Your task to perform on an android device: Open Google Chrome Image 0: 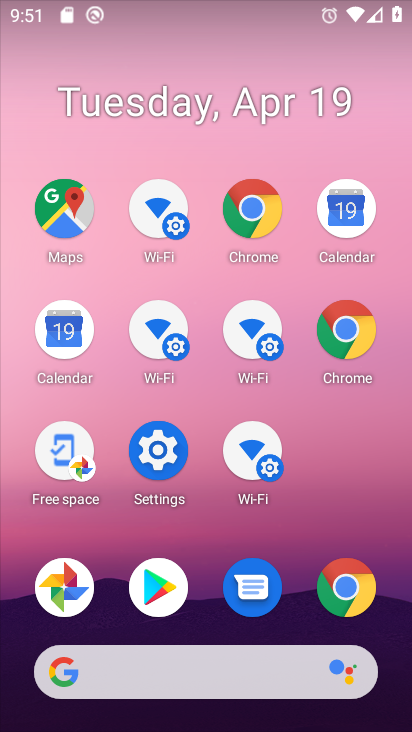
Step 0: click (351, 587)
Your task to perform on an android device: Open Google Chrome Image 1: 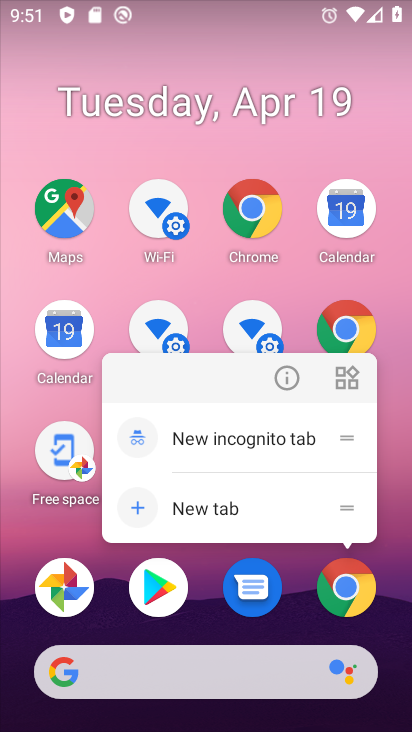
Step 1: click (353, 585)
Your task to perform on an android device: Open Google Chrome Image 2: 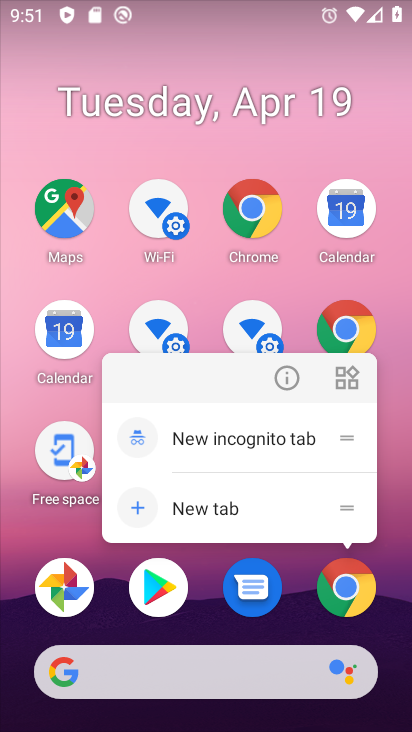
Step 2: click (193, 499)
Your task to perform on an android device: Open Google Chrome Image 3: 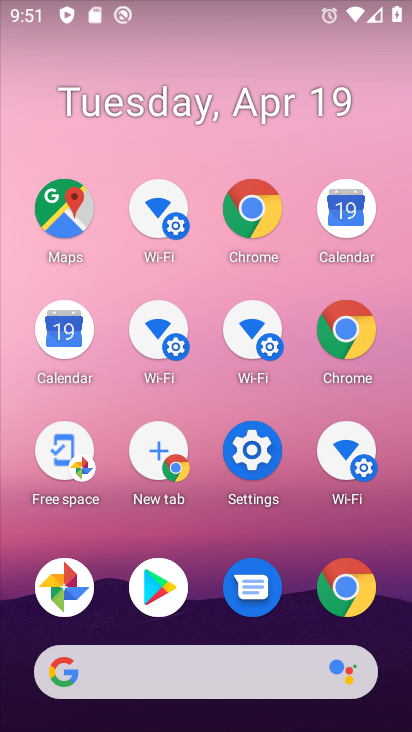
Step 3: click (183, 489)
Your task to perform on an android device: Open Google Chrome Image 4: 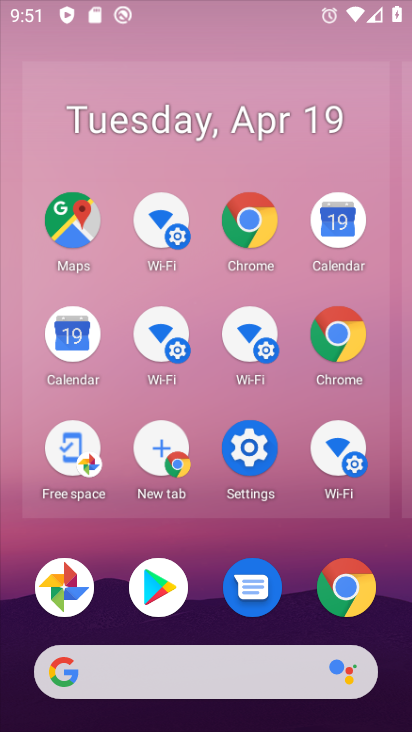
Step 4: click (351, 580)
Your task to perform on an android device: Open Google Chrome Image 5: 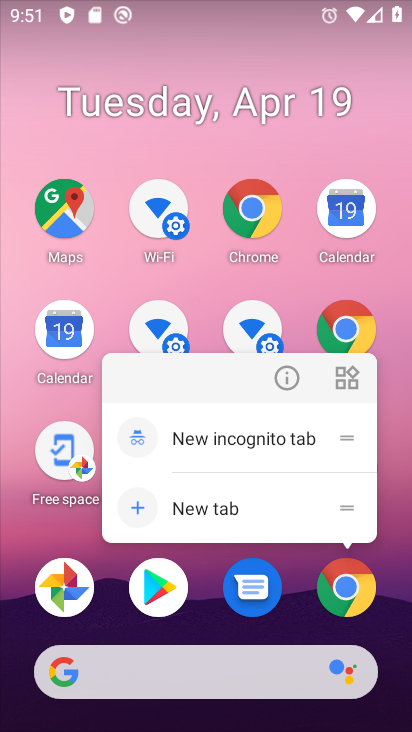
Step 5: click (207, 498)
Your task to perform on an android device: Open Google Chrome Image 6: 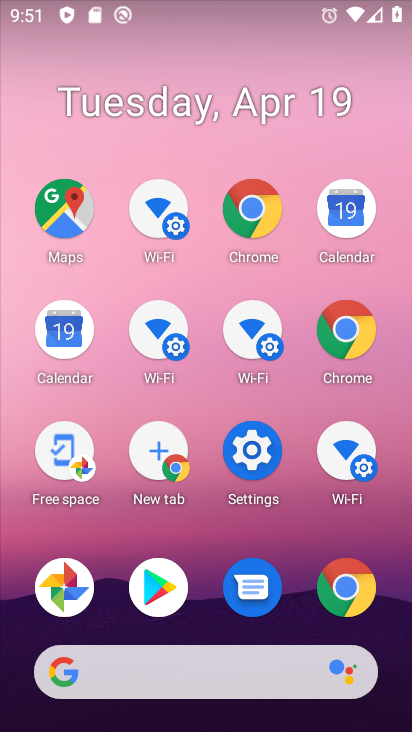
Step 6: click (332, 580)
Your task to perform on an android device: Open Google Chrome Image 7: 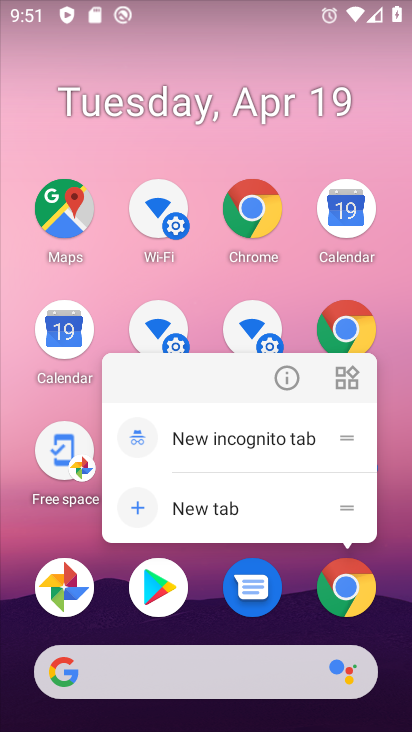
Step 7: click (237, 505)
Your task to perform on an android device: Open Google Chrome Image 8: 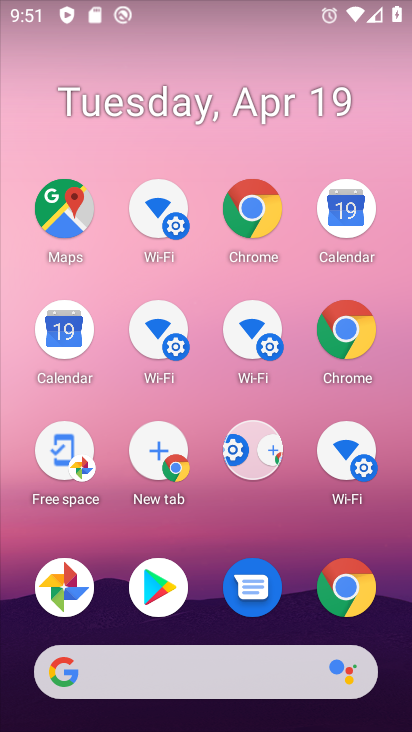
Step 8: click (338, 588)
Your task to perform on an android device: Open Google Chrome Image 9: 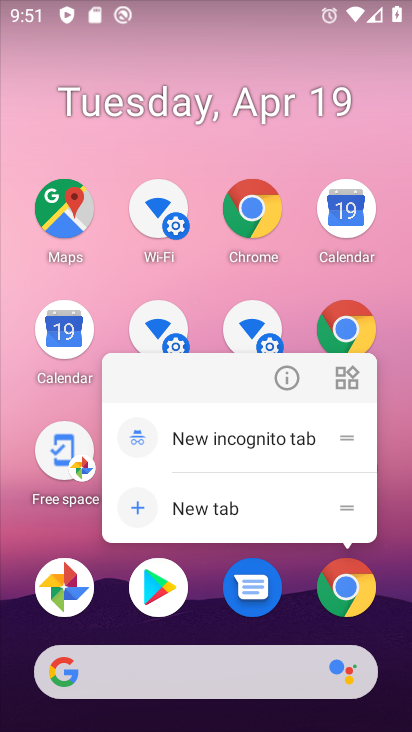
Step 9: click (178, 505)
Your task to perform on an android device: Open Google Chrome Image 10: 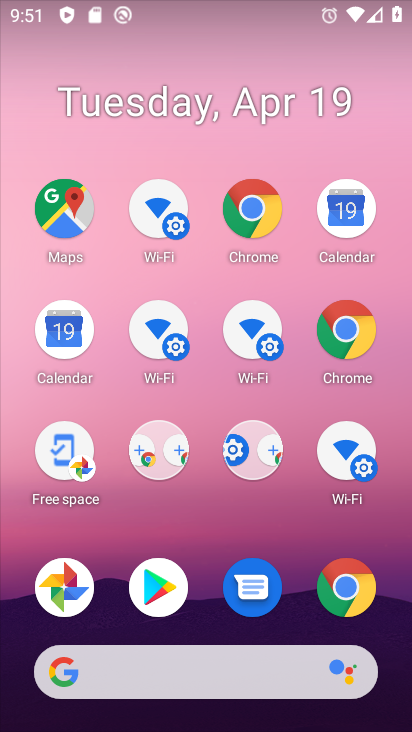
Step 10: click (338, 594)
Your task to perform on an android device: Open Google Chrome Image 11: 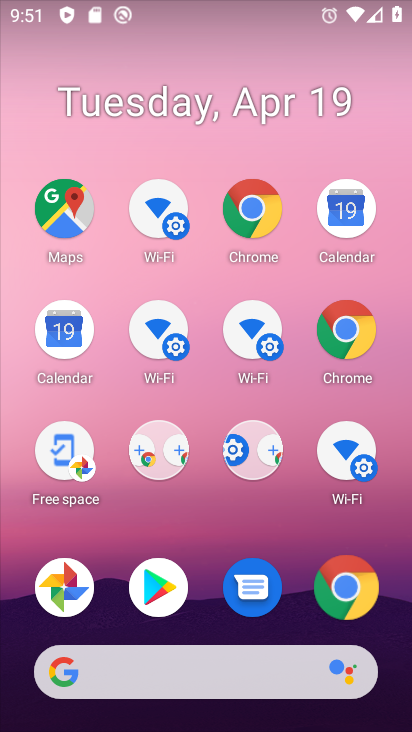
Step 11: click (340, 586)
Your task to perform on an android device: Open Google Chrome Image 12: 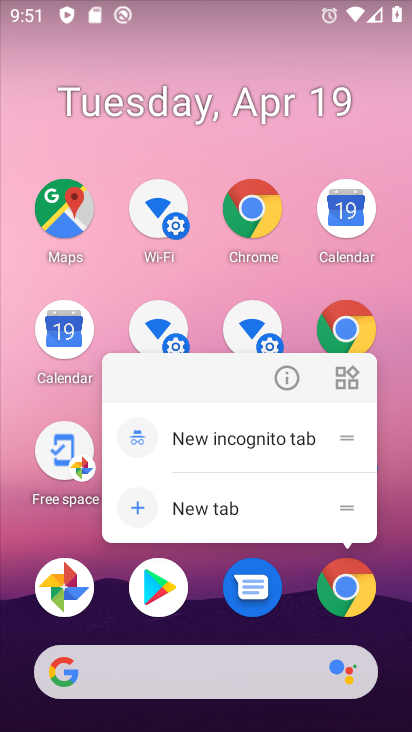
Step 12: click (354, 597)
Your task to perform on an android device: Open Google Chrome Image 13: 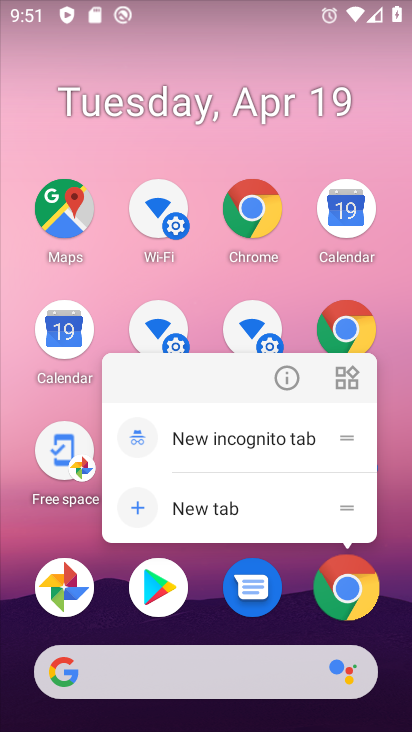
Step 13: click (354, 597)
Your task to perform on an android device: Open Google Chrome Image 14: 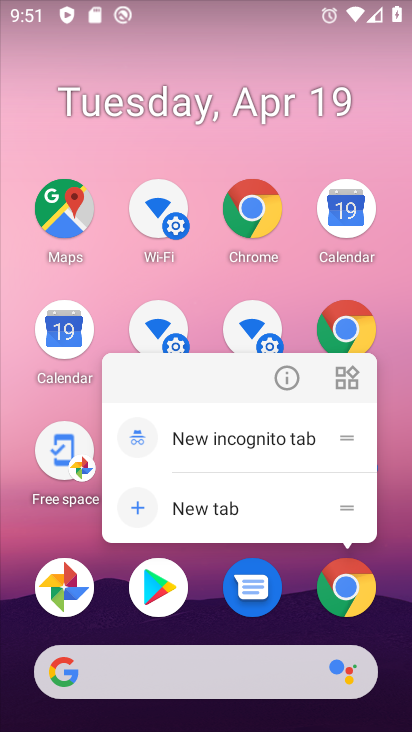
Step 14: click (348, 593)
Your task to perform on an android device: Open Google Chrome Image 15: 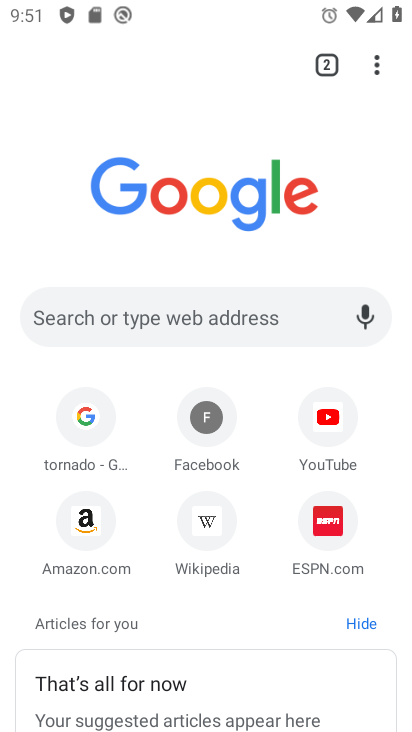
Step 15: task complete